Your task to perform on an android device: Is it going to rain this weekend? Image 0: 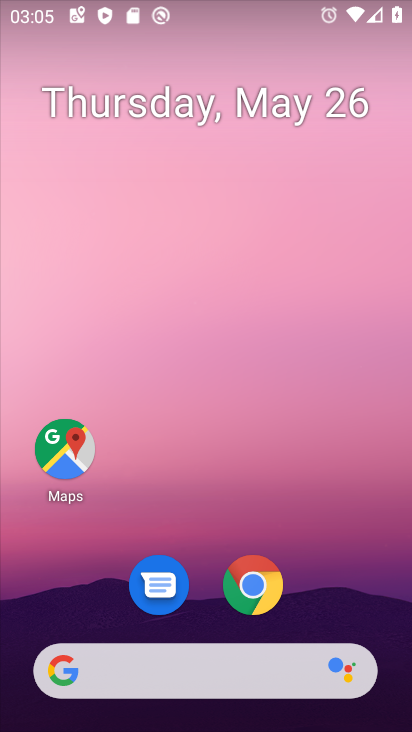
Step 0: click (190, 664)
Your task to perform on an android device: Is it going to rain this weekend? Image 1: 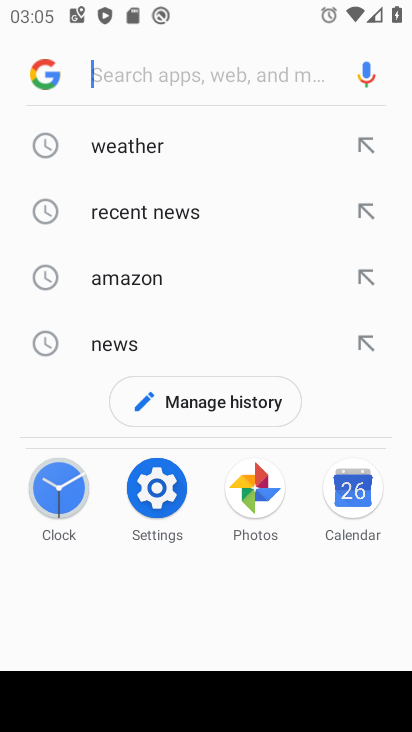
Step 1: click (117, 140)
Your task to perform on an android device: Is it going to rain this weekend? Image 2: 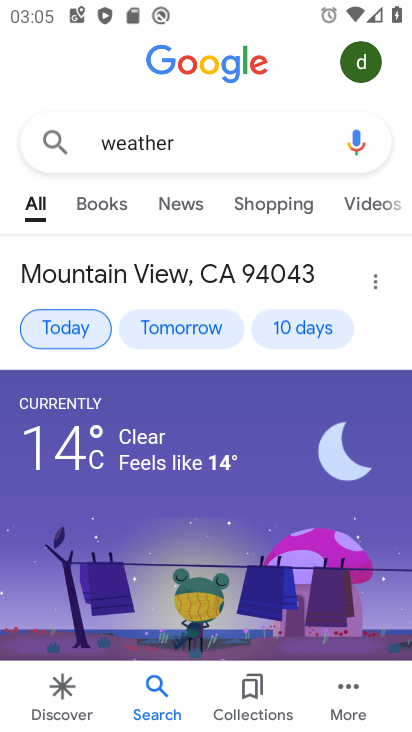
Step 2: click (72, 335)
Your task to perform on an android device: Is it going to rain this weekend? Image 3: 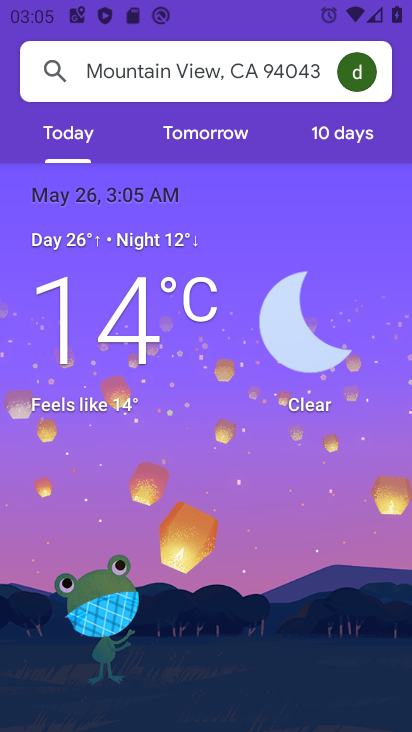
Step 3: click (334, 135)
Your task to perform on an android device: Is it going to rain this weekend? Image 4: 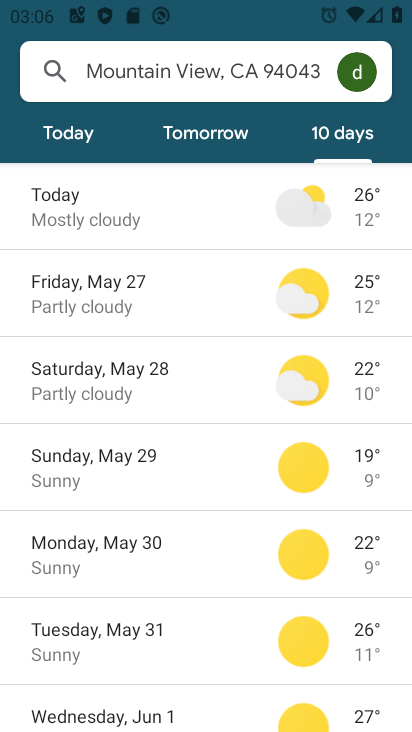
Step 4: click (134, 374)
Your task to perform on an android device: Is it going to rain this weekend? Image 5: 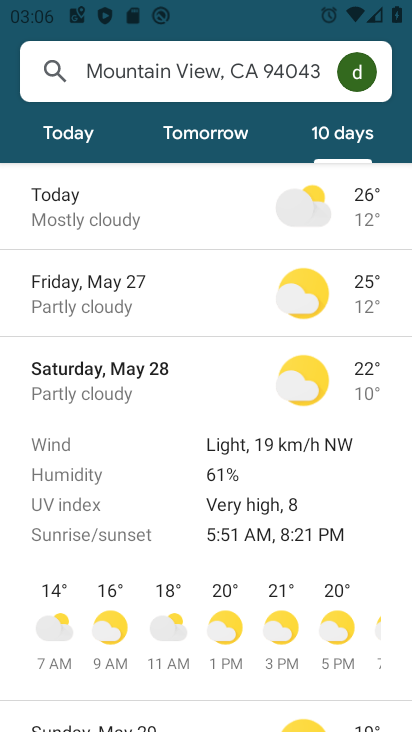
Step 5: task complete